Your task to perform on an android device: Go to notification settings Image 0: 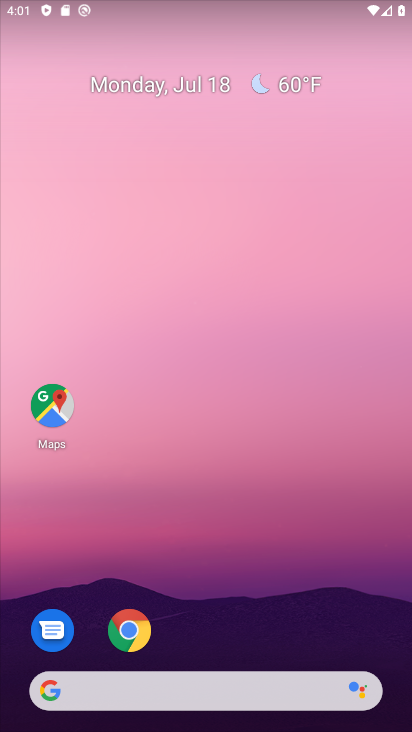
Step 0: drag from (232, 635) to (195, 312)
Your task to perform on an android device: Go to notification settings Image 1: 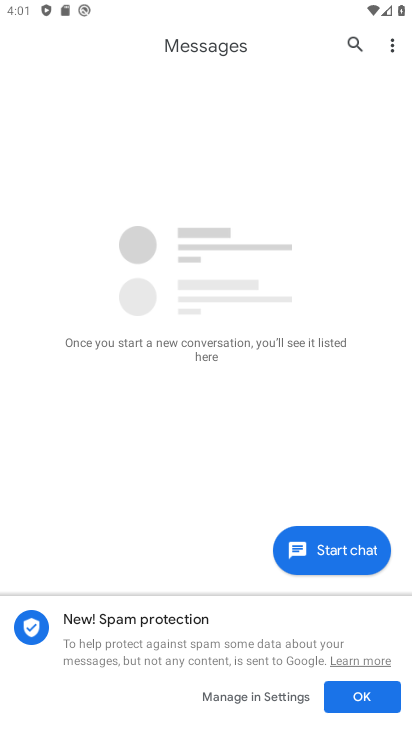
Step 1: press back button
Your task to perform on an android device: Go to notification settings Image 2: 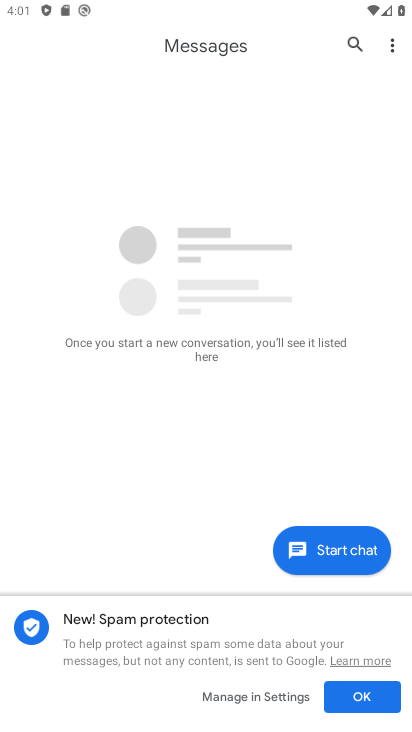
Step 2: press back button
Your task to perform on an android device: Go to notification settings Image 3: 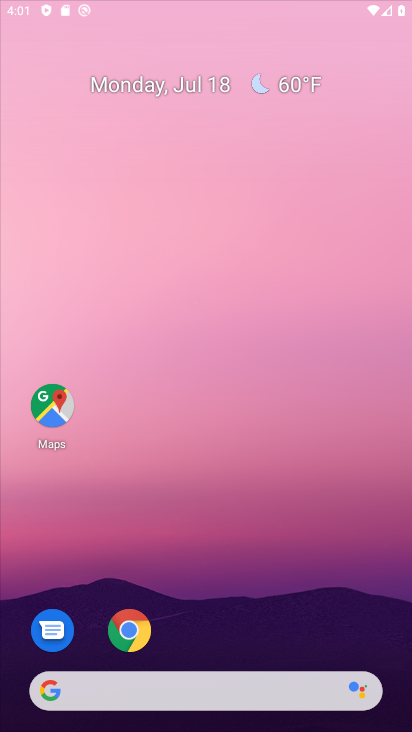
Step 3: press back button
Your task to perform on an android device: Go to notification settings Image 4: 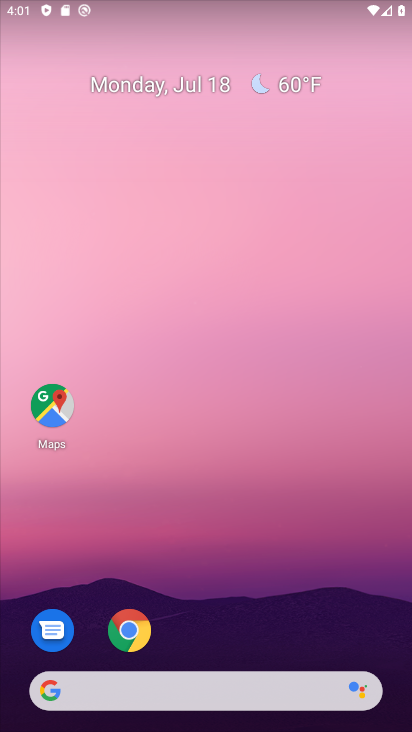
Step 4: drag from (230, 519) to (239, 260)
Your task to perform on an android device: Go to notification settings Image 5: 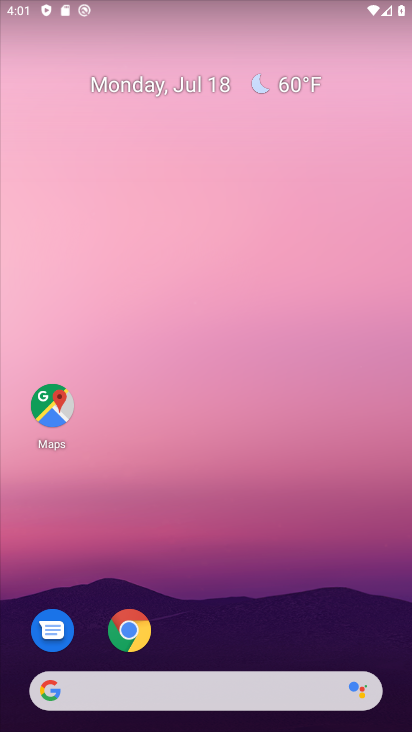
Step 5: drag from (278, 616) to (285, 191)
Your task to perform on an android device: Go to notification settings Image 6: 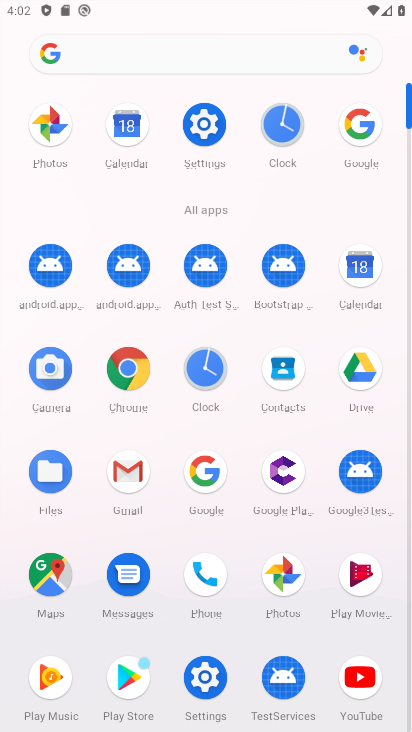
Step 6: click (220, 101)
Your task to perform on an android device: Go to notification settings Image 7: 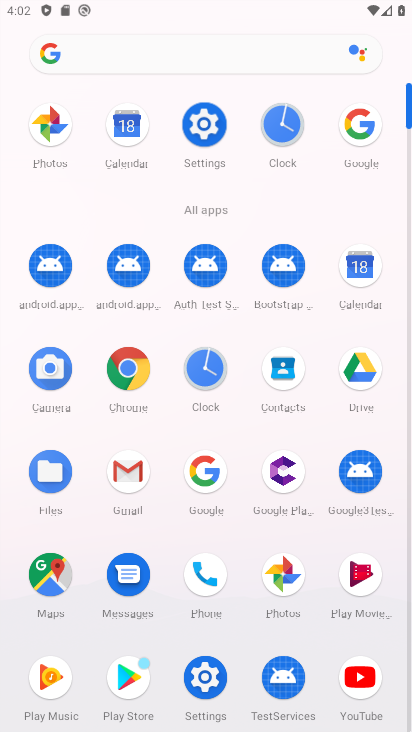
Step 7: click (219, 102)
Your task to perform on an android device: Go to notification settings Image 8: 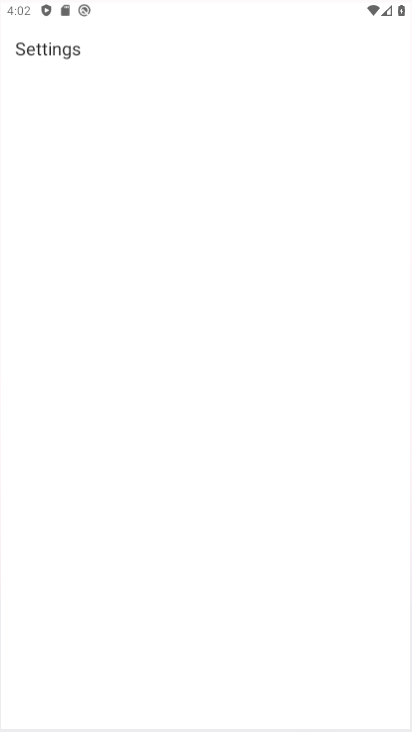
Step 8: click (198, 116)
Your task to perform on an android device: Go to notification settings Image 9: 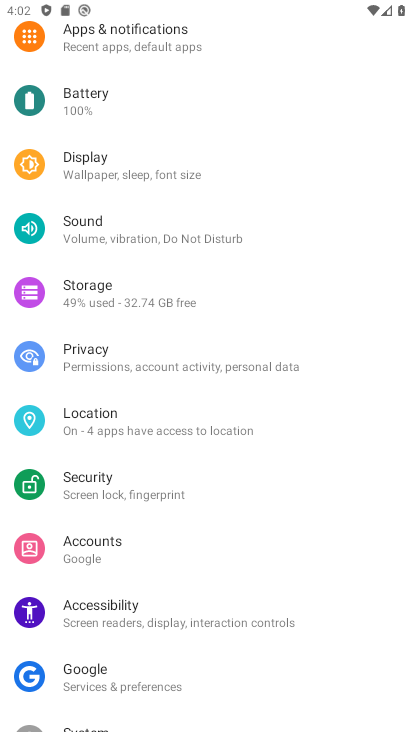
Step 9: click (198, 116)
Your task to perform on an android device: Go to notification settings Image 10: 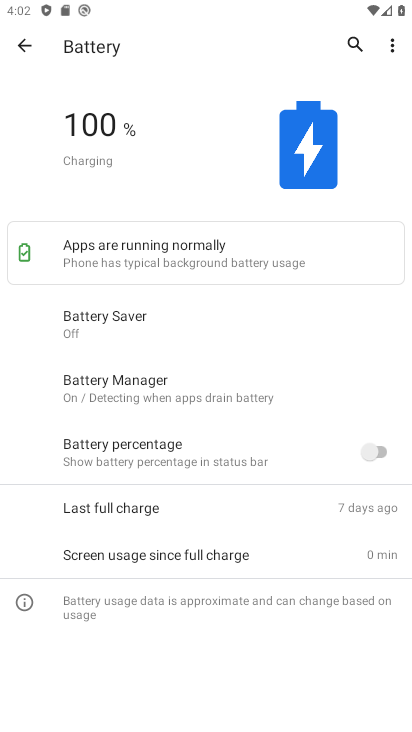
Step 10: click (31, 46)
Your task to perform on an android device: Go to notification settings Image 11: 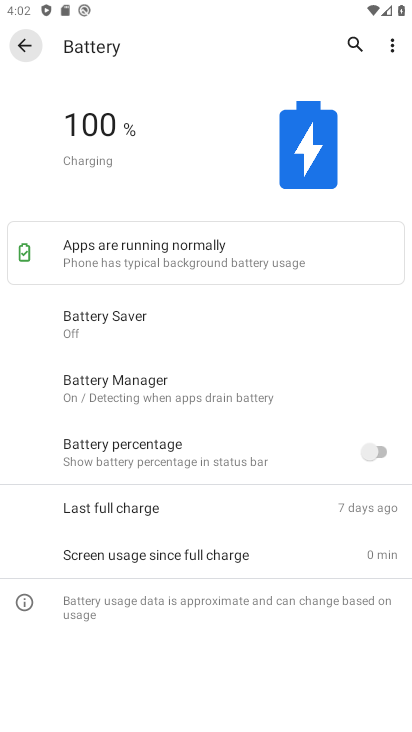
Step 11: click (31, 46)
Your task to perform on an android device: Go to notification settings Image 12: 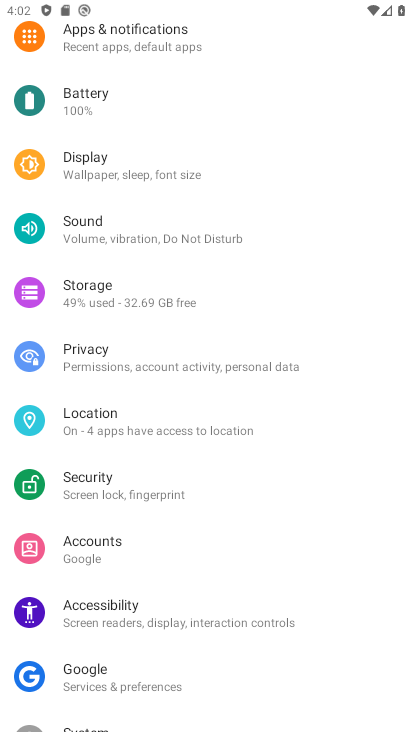
Step 12: click (123, 33)
Your task to perform on an android device: Go to notification settings Image 13: 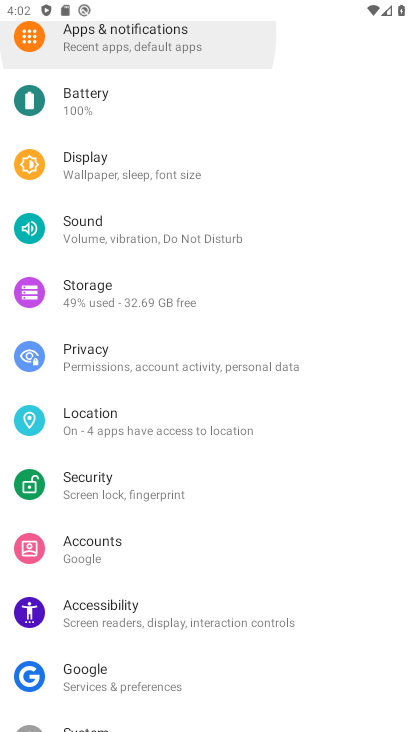
Step 13: click (120, 34)
Your task to perform on an android device: Go to notification settings Image 14: 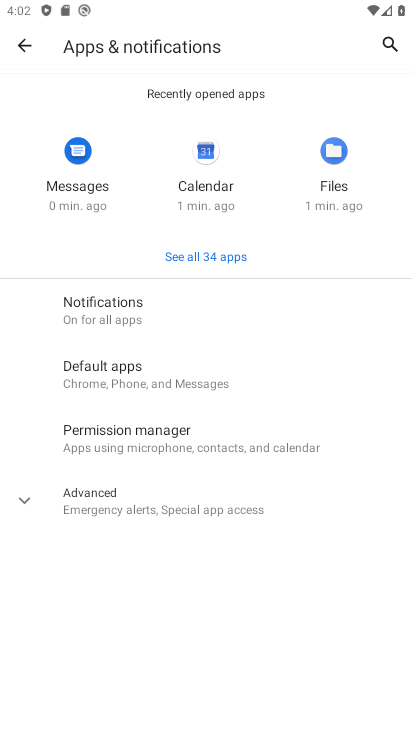
Step 14: click (91, 300)
Your task to perform on an android device: Go to notification settings Image 15: 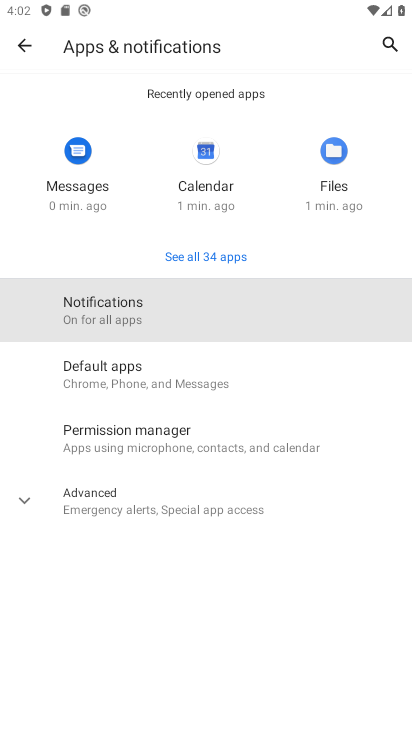
Step 15: click (99, 297)
Your task to perform on an android device: Go to notification settings Image 16: 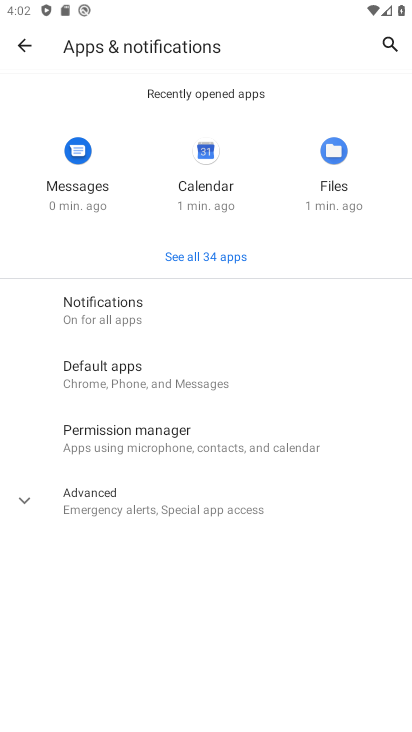
Step 16: click (99, 296)
Your task to perform on an android device: Go to notification settings Image 17: 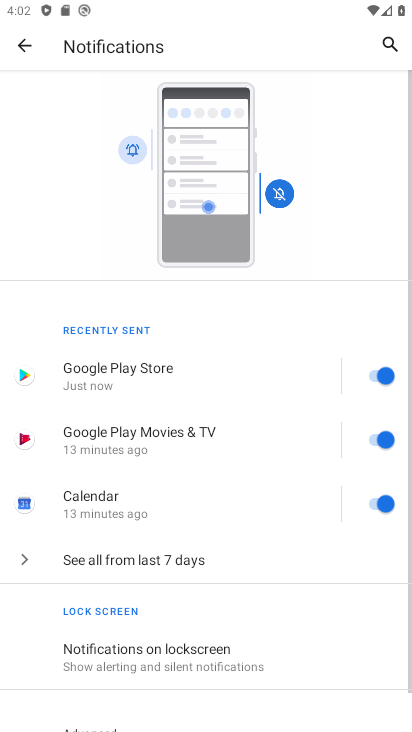
Step 17: drag from (145, 600) to (197, 252)
Your task to perform on an android device: Go to notification settings Image 18: 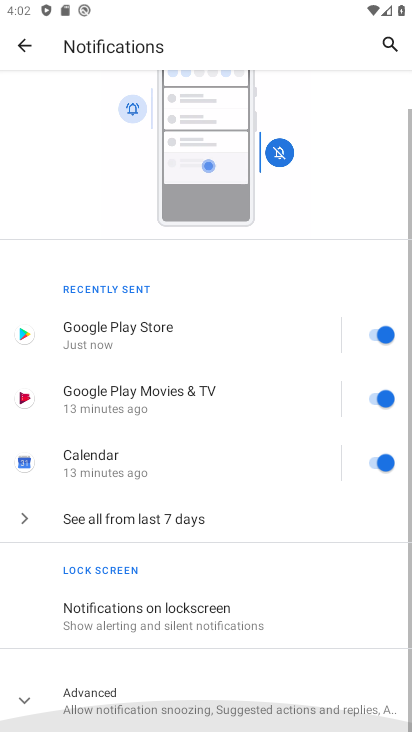
Step 18: drag from (170, 542) to (180, 182)
Your task to perform on an android device: Go to notification settings Image 19: 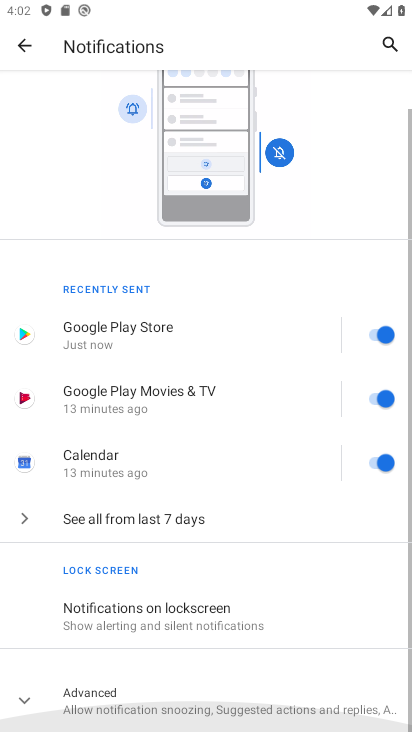
Step 19: drag from (159, 509) to (127, 280)
Your task to perform on an android device: Go to notification settings Image 20: 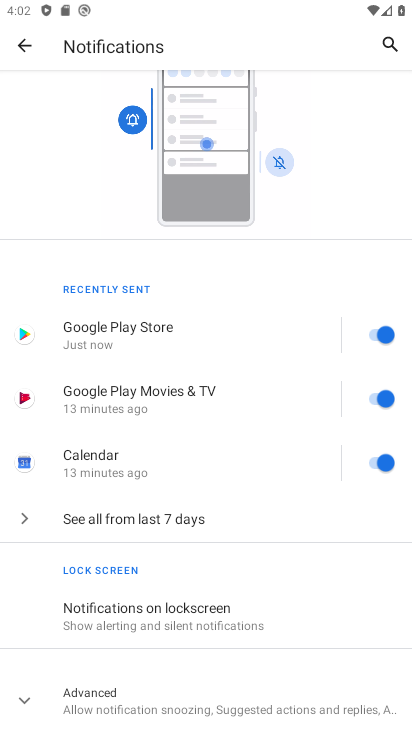
Step 20: click (75, 692)
Your task to perform on an android device: Go to notification settings Image 21: 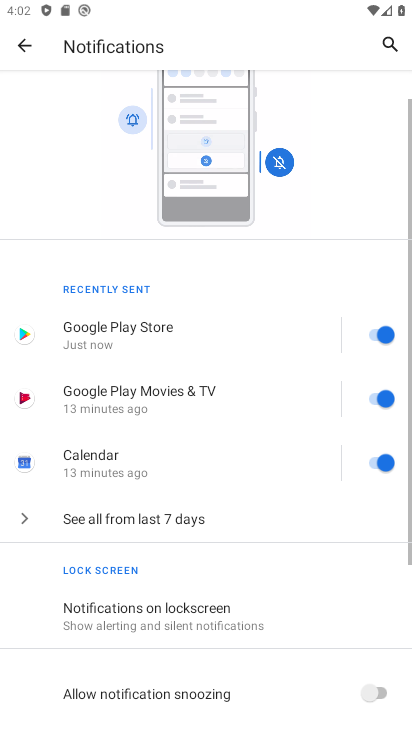
Step 21: task complete